Your task to perform on an android device: delete a single message in the gmail app Image 0: 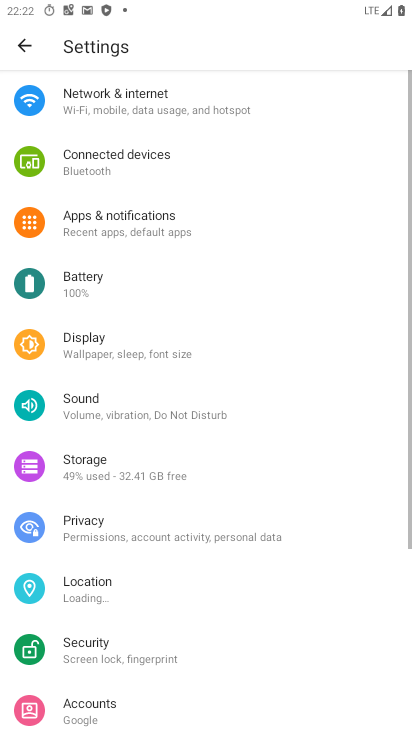
Step 0: press home button
Your task to perform on an android device: delete a single message in the gmail app Image 1: 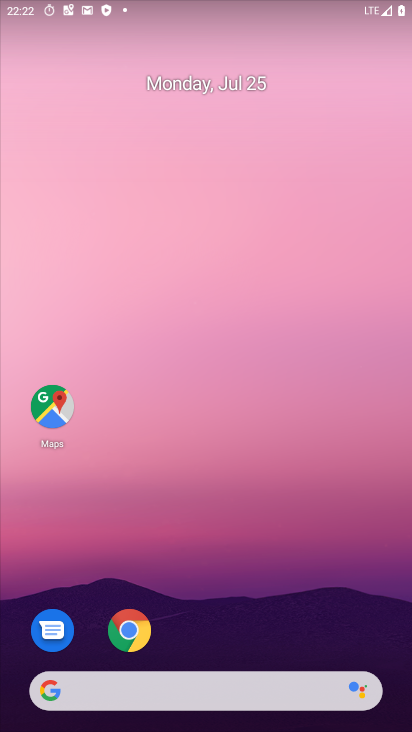
Step 1: drag from (254, 591) to (220, 121)
Your task to perform on an android device: delete a single message in the gmail app Image 2: 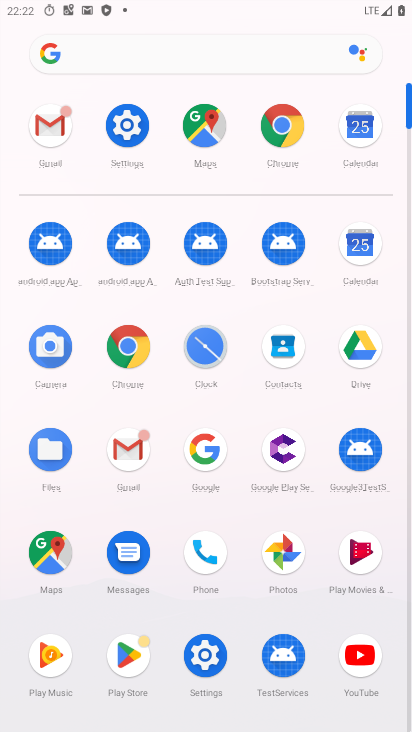
Step 2: click (53, 109)
Your task to perform on an android device: delete a single message in the gmail app Image 3: 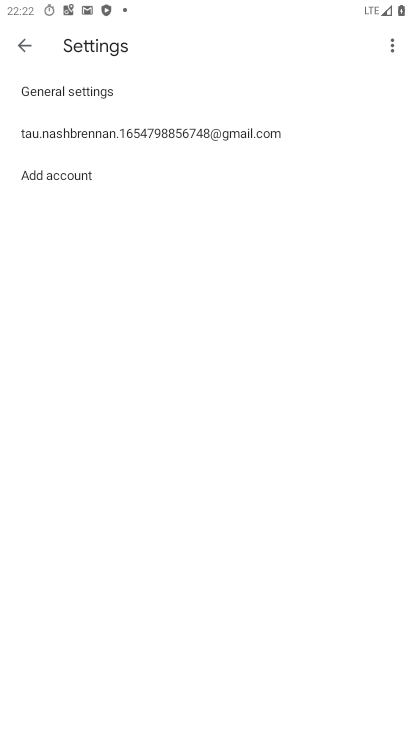
Step 3: click (26, 46)
Your task to perform on an android device: delete a single message in the gmail app Image 4: 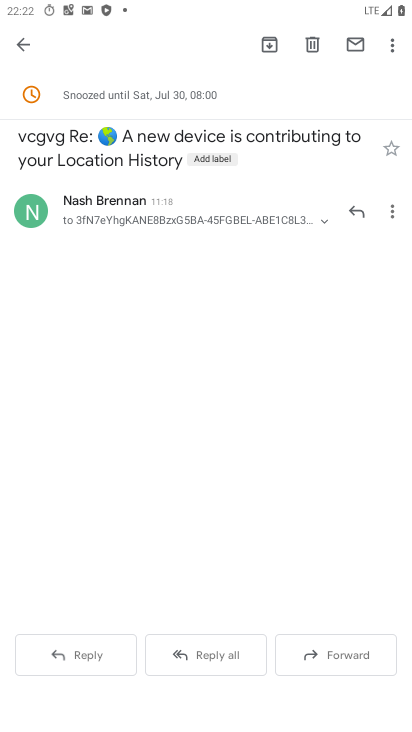
Step 4: click (26, 46)
Your task to perform on an android device: delete a single message in the gmail app Image 5: 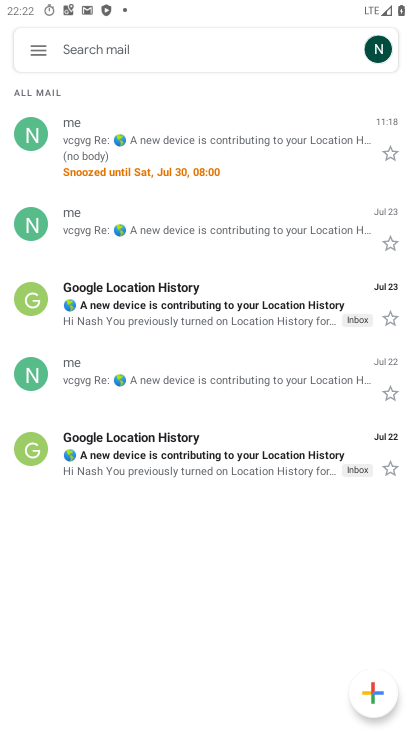
Step 5: click (116, 150)
Your task to perform on an android device: delete a single message in the gmail app Image 6: 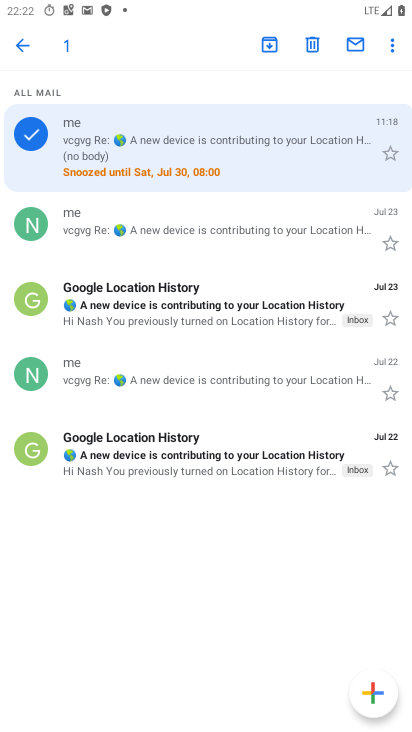
Step 6: click (116, 150)
Your task to perform on an android device: delete a single message in the gmail app Image 7: 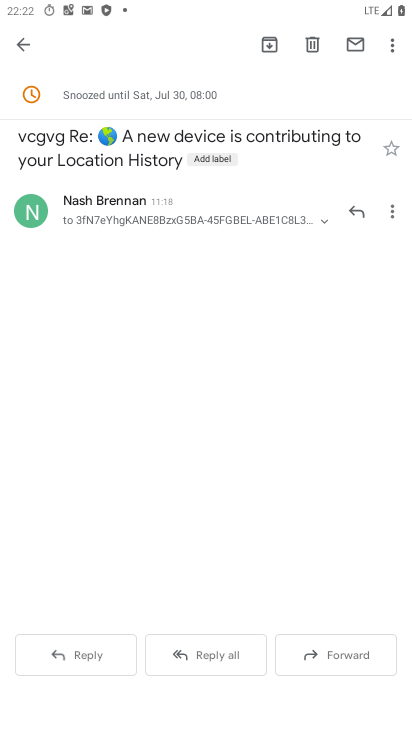
Step 7: click (313, 44)
Your task to perform on an android device: delete a single message in the gmail app Image 8: 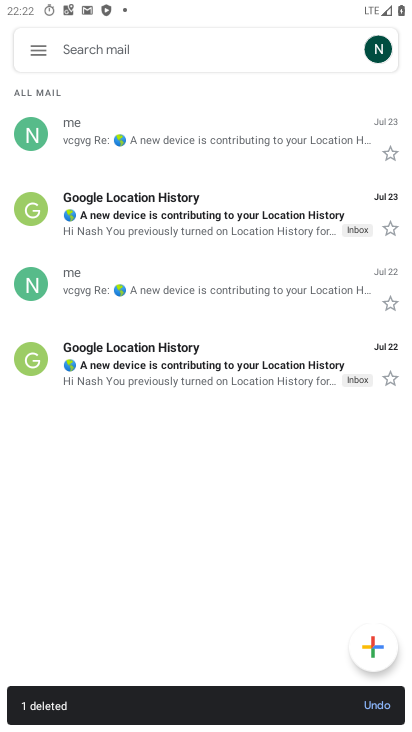
Step 8: task complete